Your task to perform on an android device: set the stopwatch Image 0: 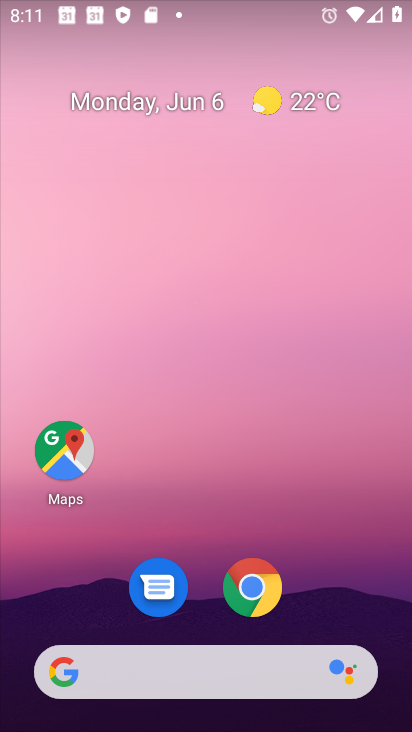
Step 0: drag from (186, 646) to (212, 292)
Your task to perform on an android device: set the stopwatch Image 1: 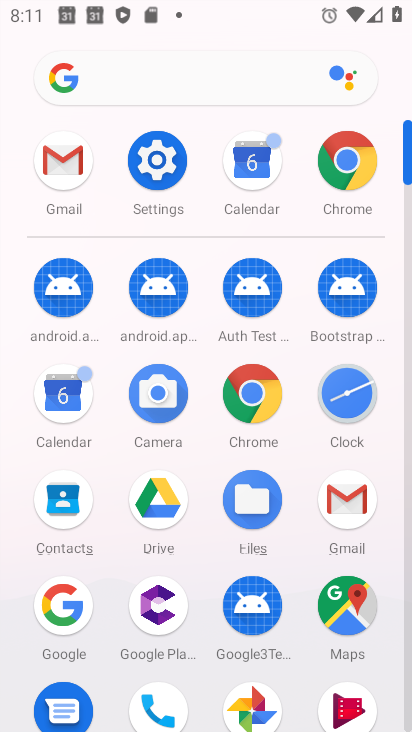
Step 1: click (352, 397)
Your task to perform on an android device: set the stopwatch Image 2: 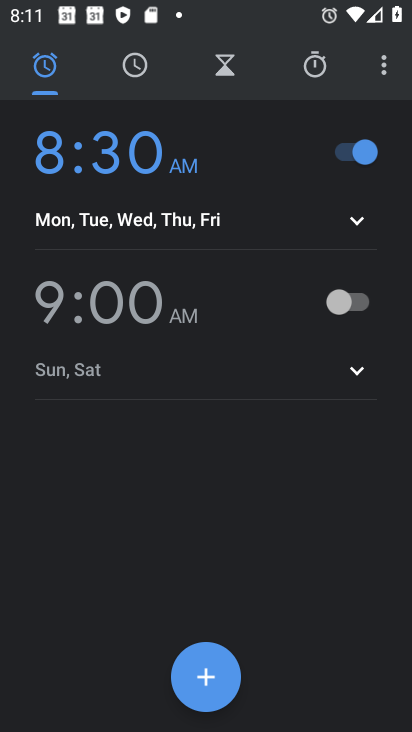
Step 2: click (314, 77)
Your task to perform on an android device: set the stopwatch Image 3: 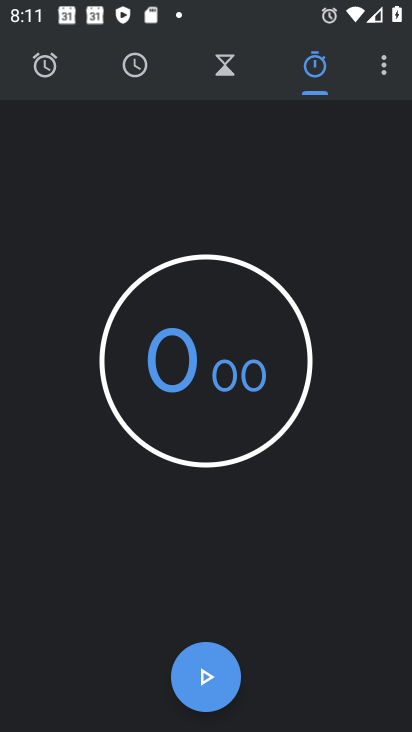
Step 3: click (198, 688)
Your task to perform on an android device: set the stopwatch Image 4: 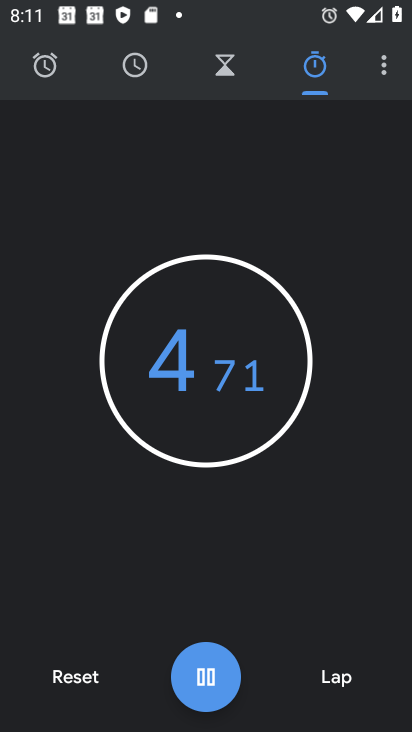
Step 4: click (198, 688)
Your task to perform on an android device: set the stopwatch Image 5: 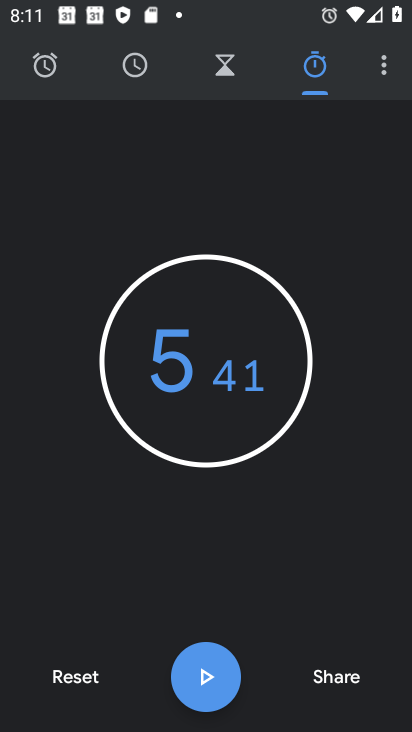
Step 5: task complete